Your task to perform on an android device: Empty the shopping cart on newegg.com. Image 0: 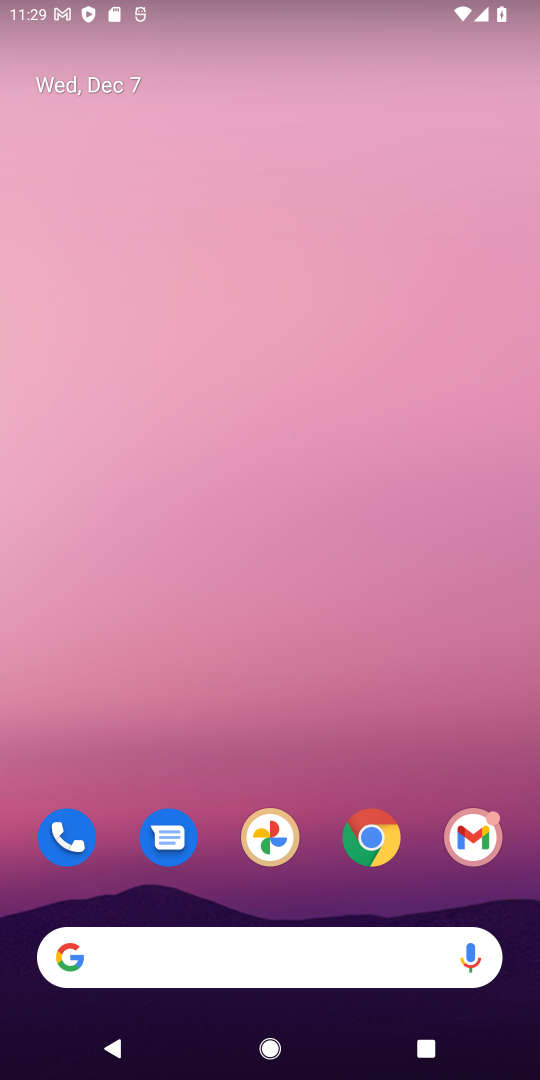
Step 0: click (366, 837)
Your task to perform on an android device: Empty the shopping cart on newegg.com. Image 1: 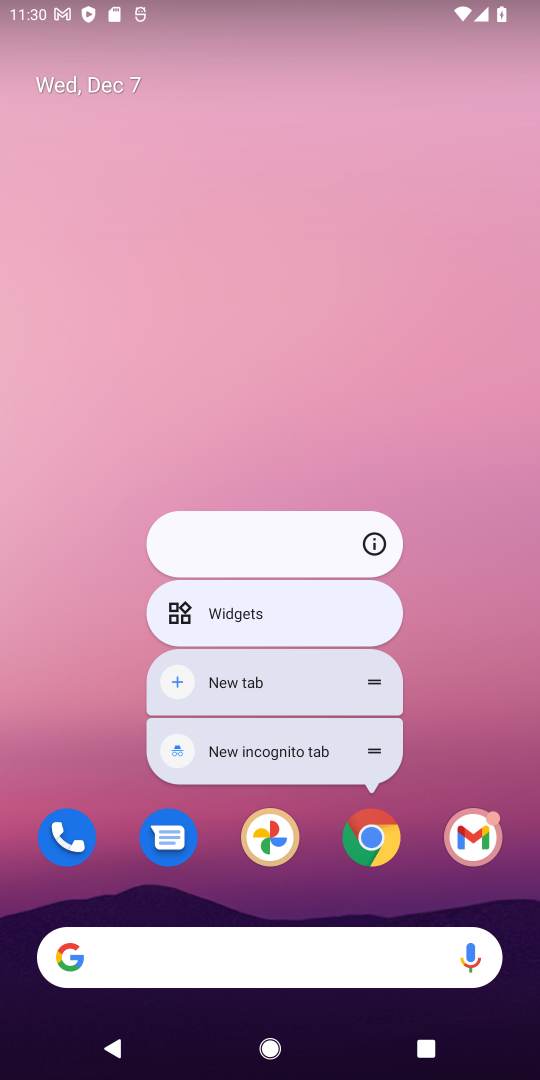
Step 1: click (373, 836)
Your task to perform on an android device: Empty the shopping cart on newegg.com. Image 2: 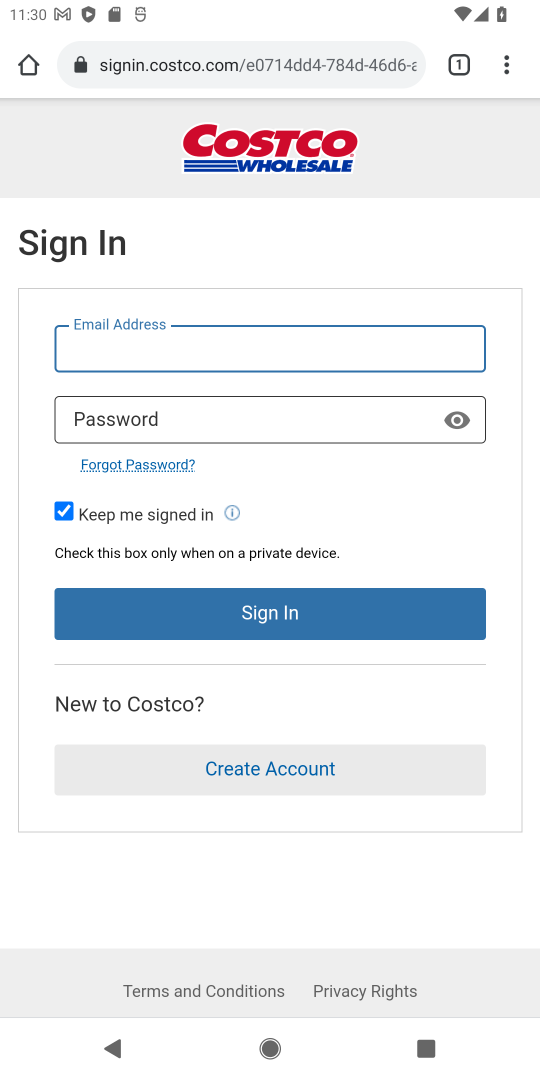
Step 2: click (270, 63)
Your task to perform on an android device: Empty the shopping cart on newegg.com. Image 3: 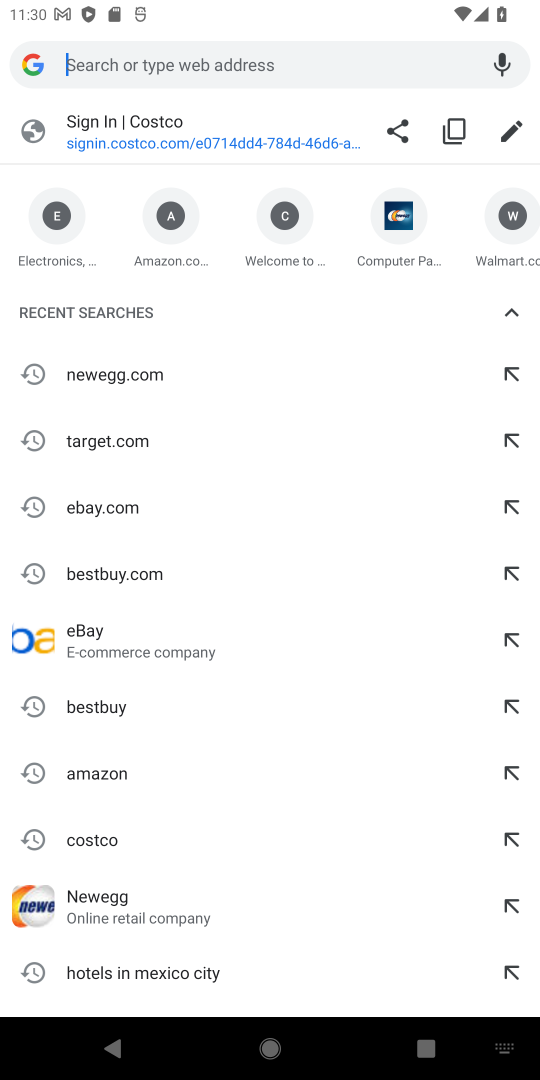
Step 3: click (127, 374)
Your task to perform on an android device: Empty the shopping cart on newegg.com. Image 4: 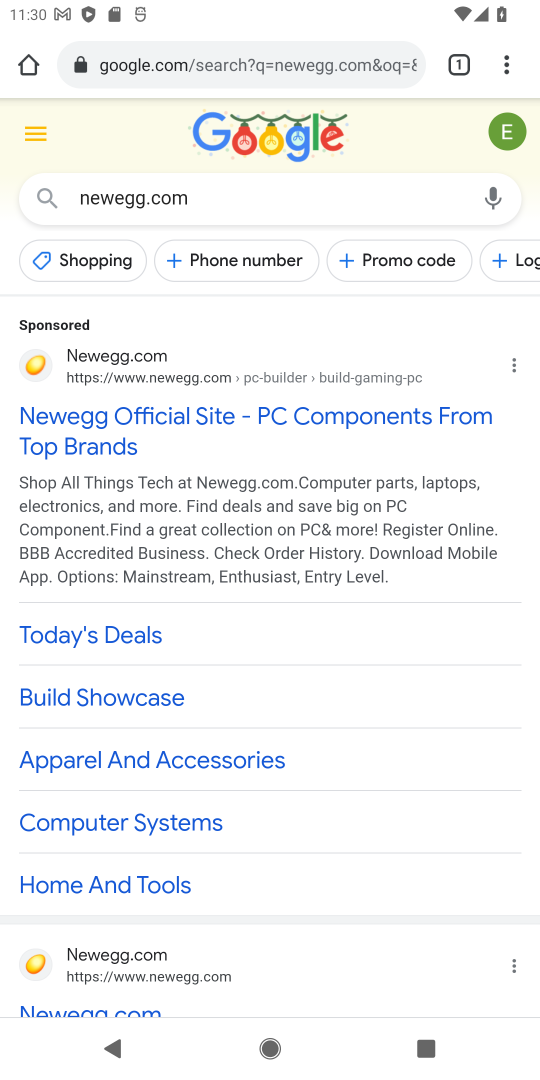
Step 4: drag from (281, 775) to (300, 540)
Your task to perform on an android device: Empty the shopping cart on newegg.com. Image 5: 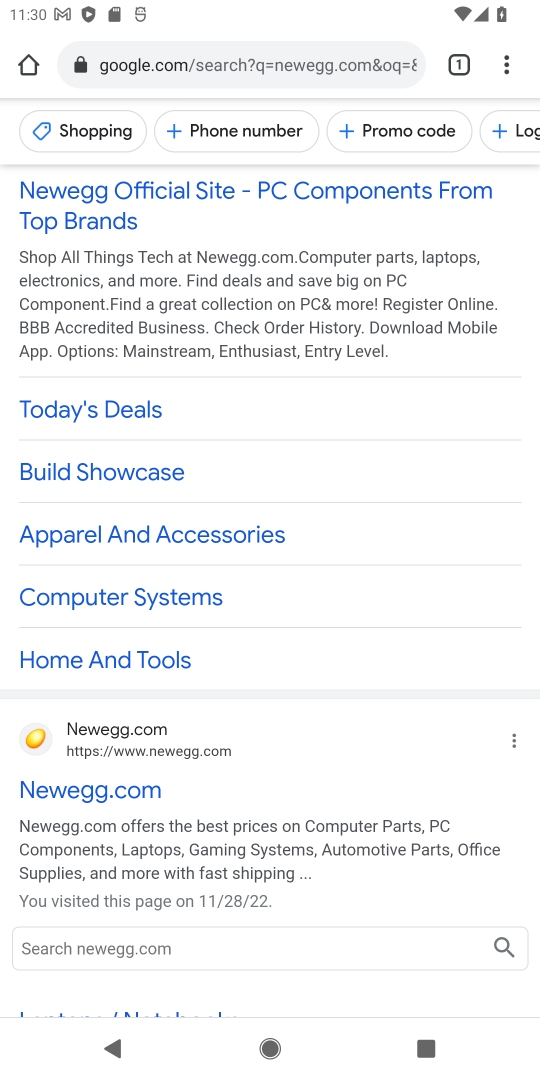
Step 5: click (198, 754)
Your task to perform on an android device: Empty the shopping cart on newegg.com. Image 6: 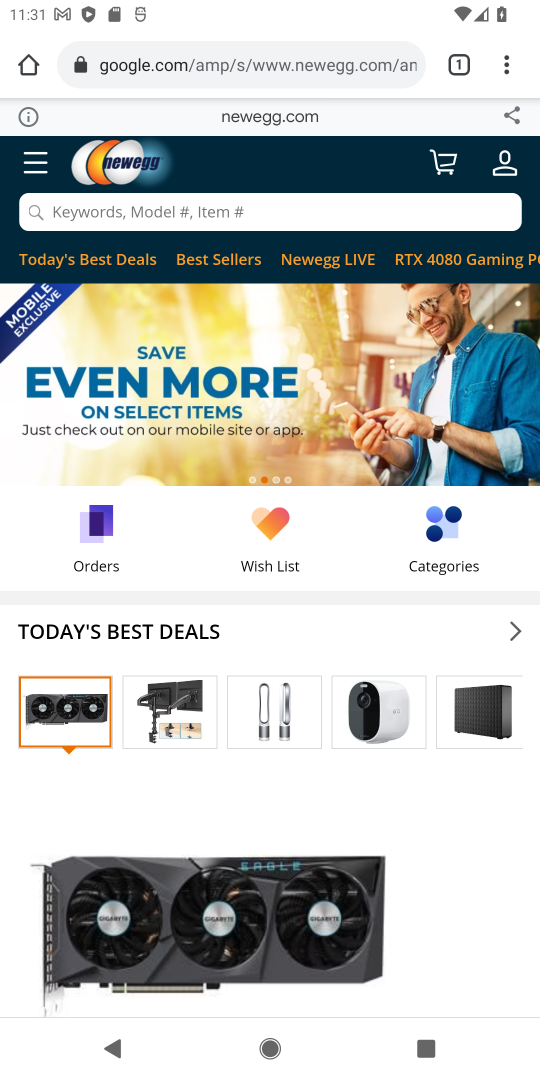
Step 6: click (450, 159)
Your task to perform on an android device: Empty the shopping cart on newegg.com. Image 7: 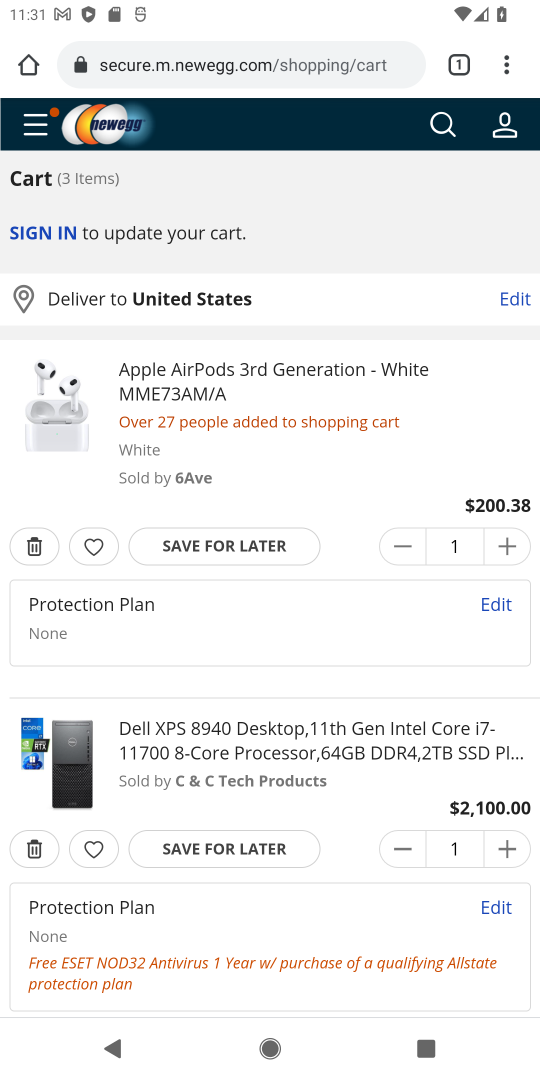
Step 7: click (30, 549)
Your task to perform on an android device: Empty the shopping cart on newegg.com. Image 8: 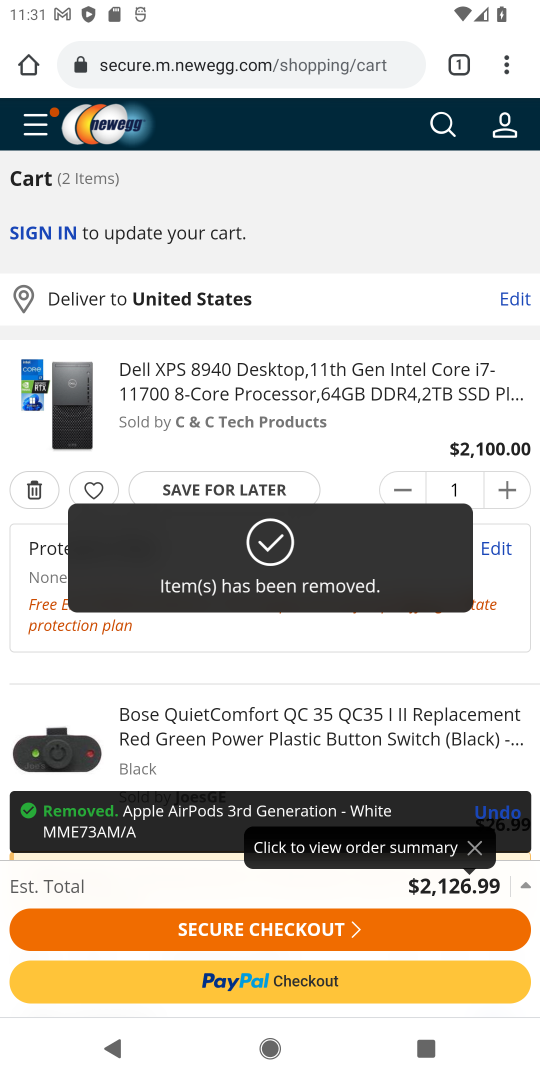
Step 8: click (30, 479)
Your task to perform on an android device: Empty the shopping cart on newegg.com. Image 9: 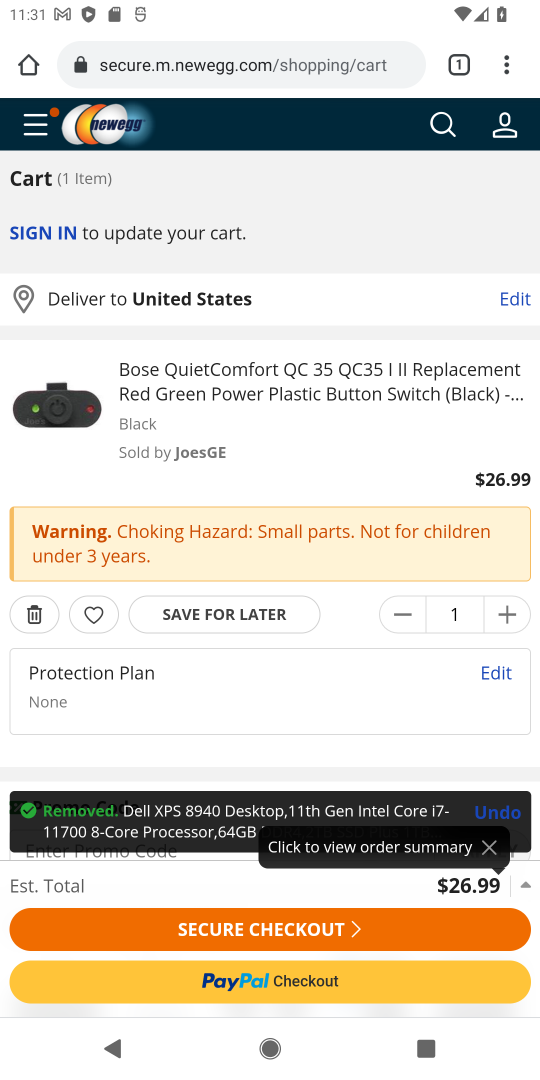
Step 9: click (25, 616)
Your task to perform on an android device: Empty the shopping cart on newegg.com. Image 10: 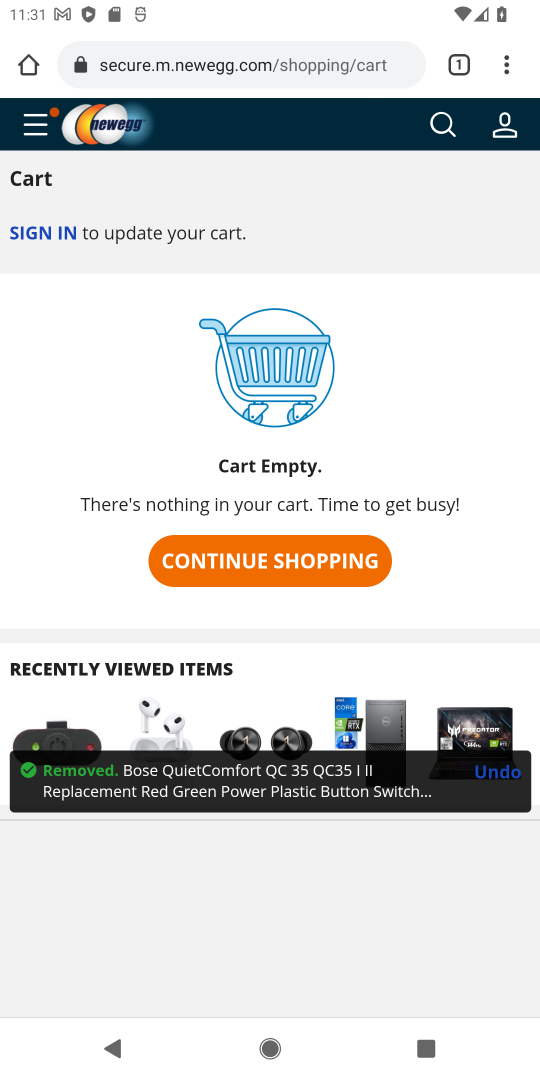
Step 10: task complete